Your task to perform on an android device: Go to Android settings Image 0: 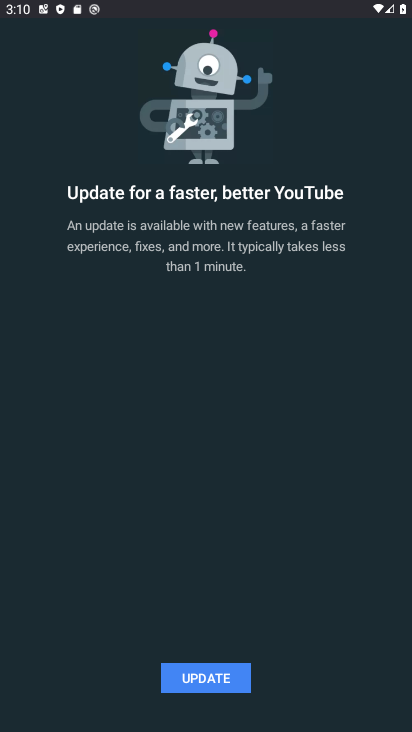
Step 0: press home button
Your task to perform on an android device: Go to Android settings Image 1: 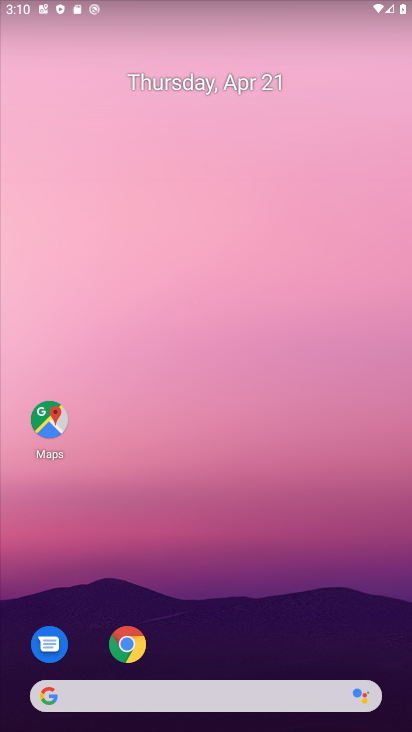
Step 1: drag from (186, 651) to (340, 96)
Your task to perform on an android device: Go to Android settings Image 2: 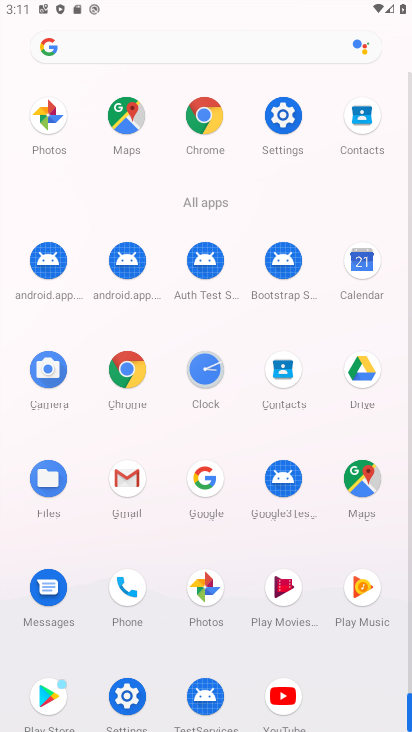
Step 2: click (297, 110)
Your task to perform on an android device: Go to Android settings Image 3: 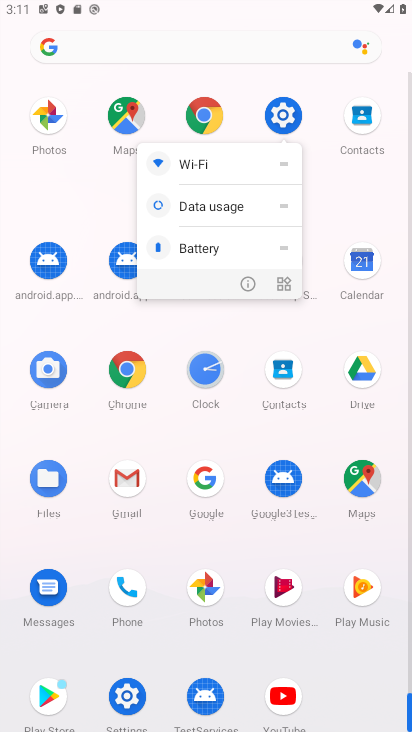
Step 3: click (297, 110)
Your task to perform on an android device: Go to Android settings Image 4: 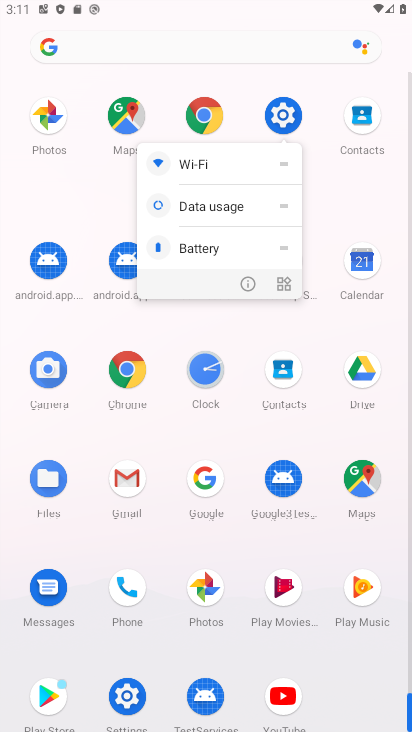
Step 4: click (305, 110)
Your task to perform on an android device: Go to Android settings Image 5: 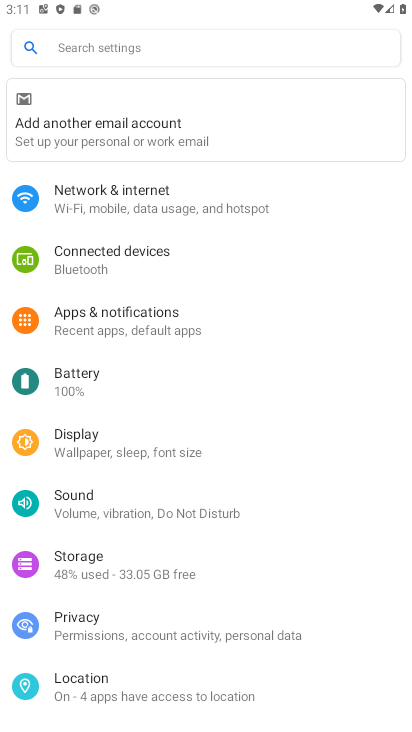
Step 5: drag from (156, 578) to (237, 182)
Your task to perform on an android device: Go to Android settings Image 6: 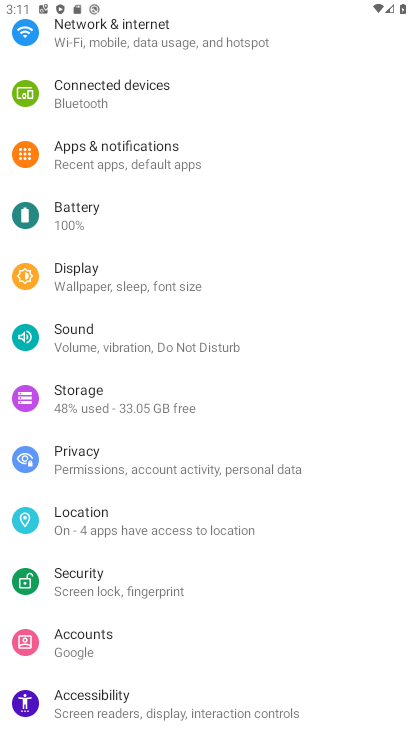
Step 6: drag from (149, 620) to (250, 237)
Your task to perform on an android device: Go to Android settings Image 7: 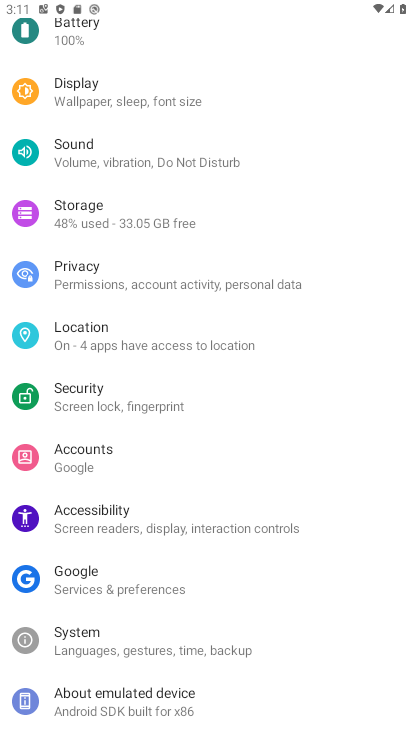
Step 7: click (67, 706)
Your task to perform on an android device: Go to Android settings Image 8: 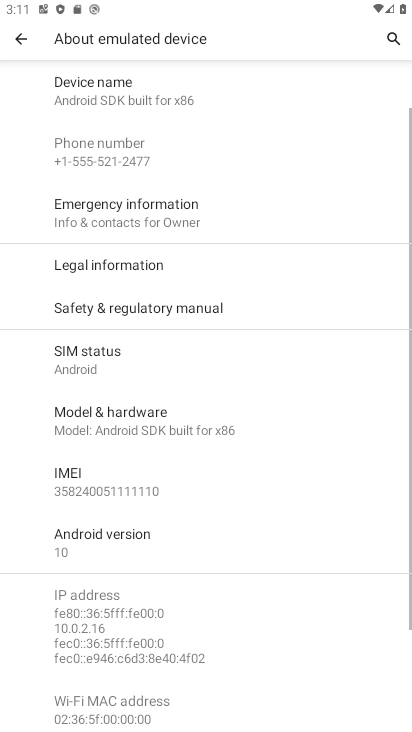
Step 8: click (186, 551)
Your task to perform on an android device: Go to Android settings Image 9: 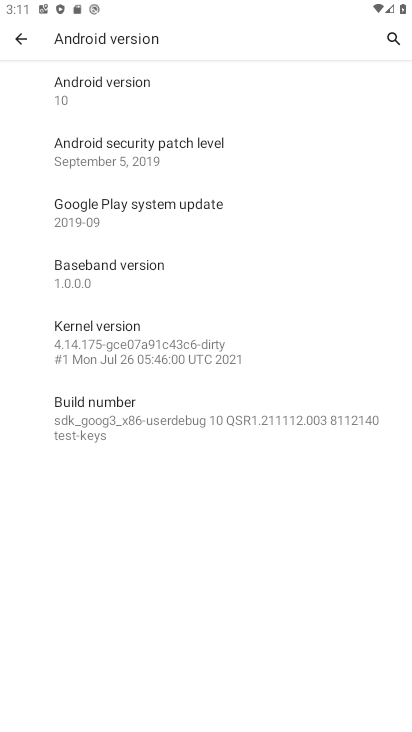
Step 9: click (34, 40)
Your task to perform on an android device: Go to Android settings Image 10: 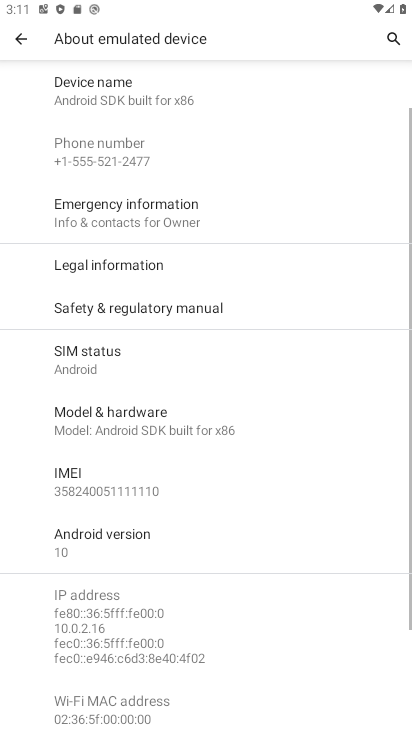
Step 10: task complete